Your task to perform on an android device: Open battery settings Image 0: 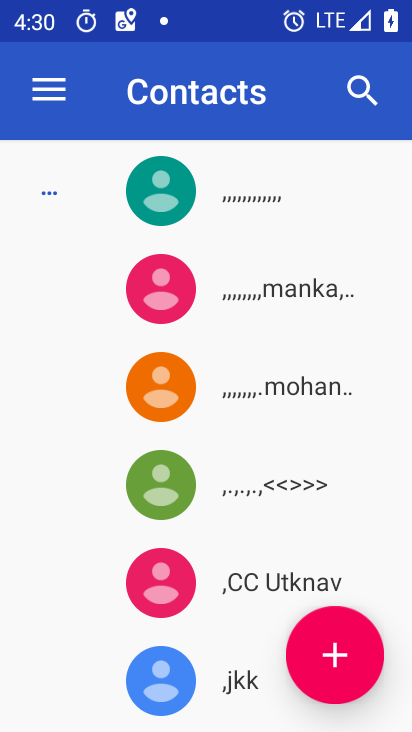
Step 0: press back button
Your task to perform on an android device: Open battery settings Image 1: 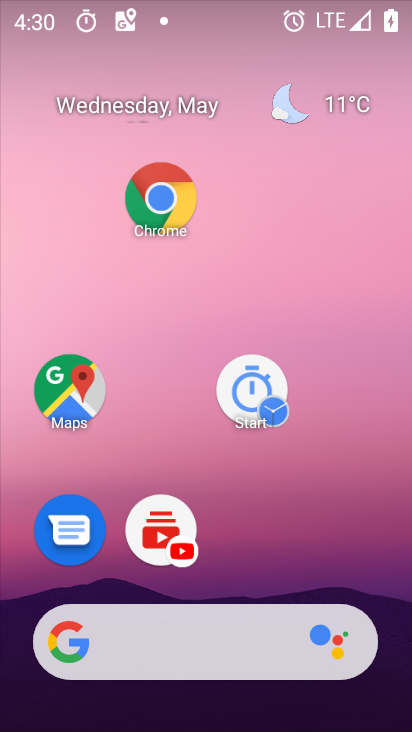
Step 1: drag from (216, 225) to (171, 58)
Your task to perform on an android device: Open battery settings Image 2: 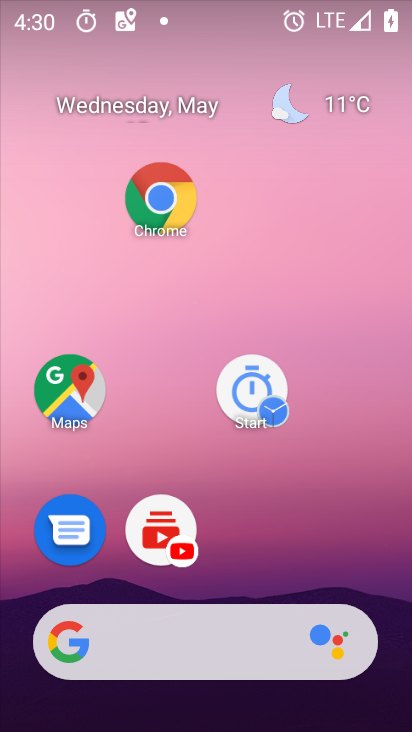
Step 2: drag from (251, 495) to (171, 52)
Your task to perform on an android device: Open battery settings Image 3: 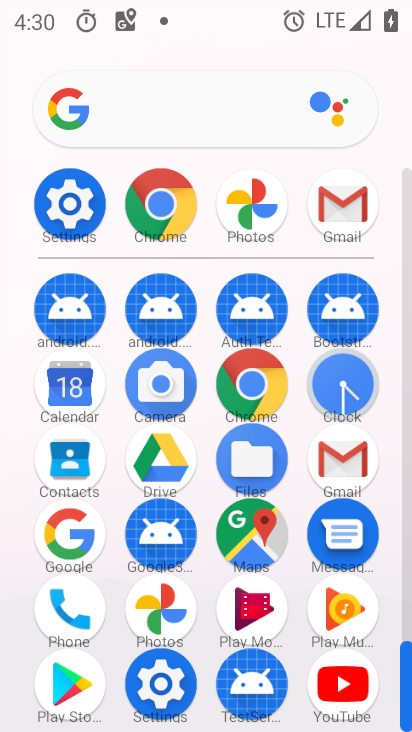
Step 3: click (65, 192)
Your task to perform on an android device: Open battery settings Image 4: 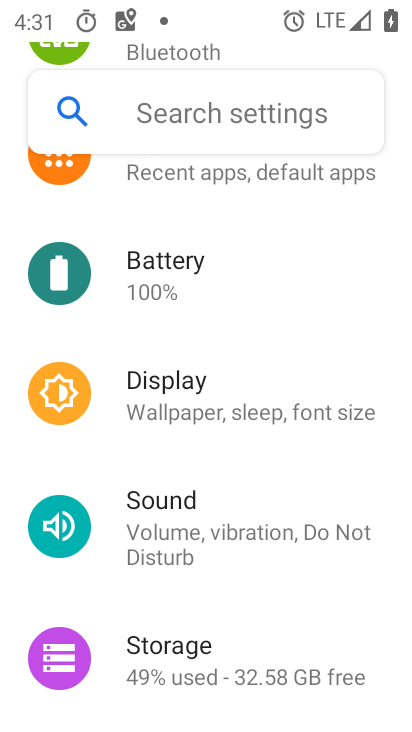
Step 4: drag from (160, 276) to (240, 553)
Your task to perform on an android device: Open battery settings Image 5: 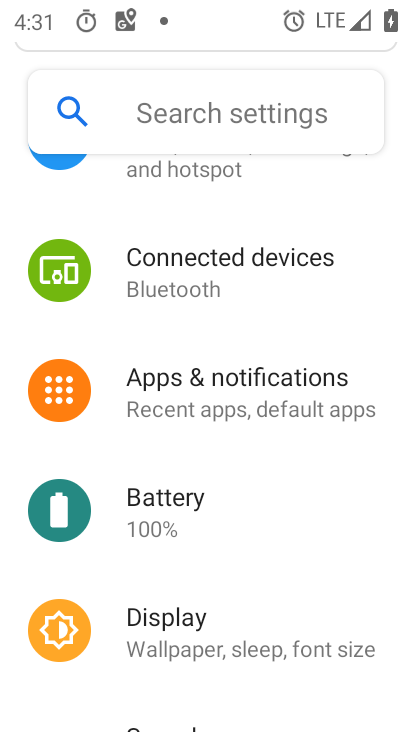
Step 5: click (180, 499)
Your task to perform on an android device: Open battery settings Image 6: 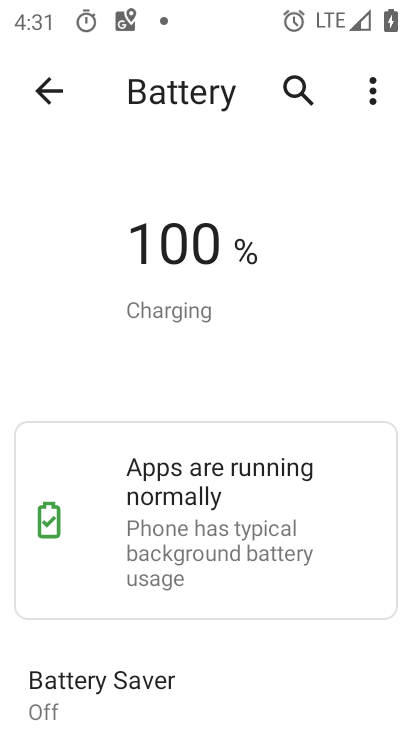
Step 6: task complete